Your task to perform on an android device: open app "NewsBreak: Local News & Alerts" (install if not already installed) Image 0: 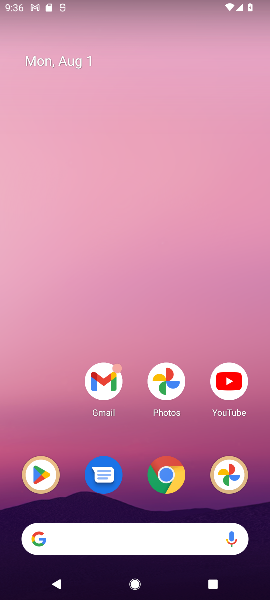
Step 0: click (42, 471)
Your task to perform on an android device: open app "NewsBreak: Local News & Alerts" (install if not already installed) Image 1: 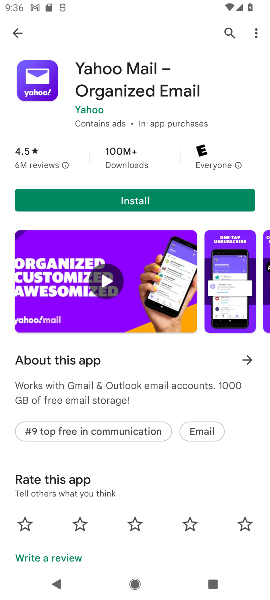
Step 1: click (16, 37)
Your task to perform on an android device: open app "NewsBreak: Local News & Alerts" (install if not already installed) Image 2: 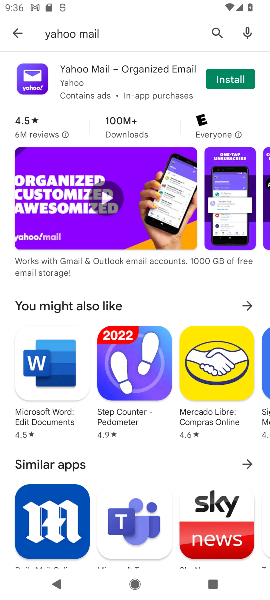
Step 2: click (18, 36)
Your task to perform on an android device: open app "NewsBreak: Local News & Alerts" (install if not already installed) Image 3: 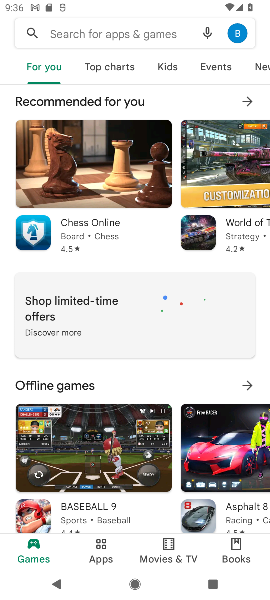
Step 3: click (148, 28)
Your task to perform on an android device: open app "NewsBreak: Local News & Alerts" (install if not already installed) Image 4: 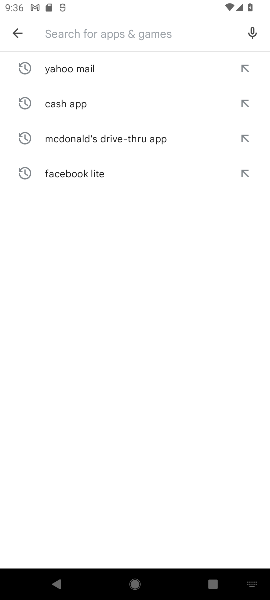
Step 4: type "NewsBreak: Local News & Alerts"
Your task to perform on an android device: open app "NewsBreak: Local News & Alerts" (install if not already installed) Image 5: 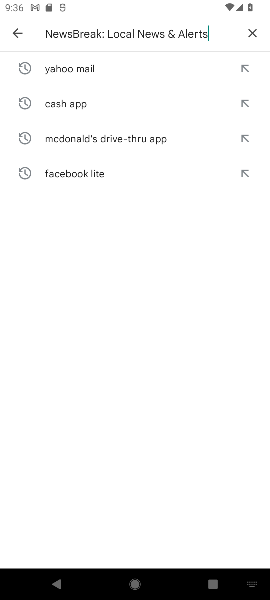
Step 5: type ""
Your task to perform on an android device: open app "NewsBreak: Local News & Alerts" (install if not already installed) Image 6: 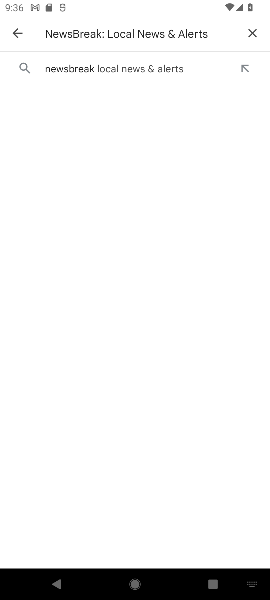
Step 6: click (58, 71)
Your task to perform on an android device: open app "NewsBreak: Local News & Alerts" (install if not already installed) Image 7: 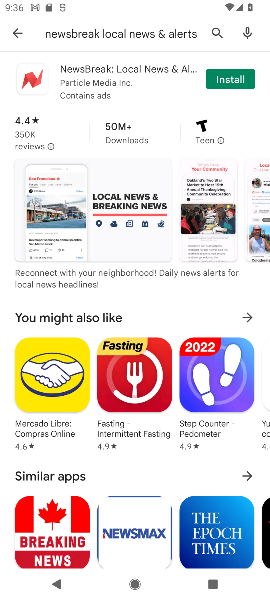
Step 7: click (217, 81)
Your task to perform on an android device: open app "NewsBreak: Local News & Alerts" (install if not already installed) Image 8: 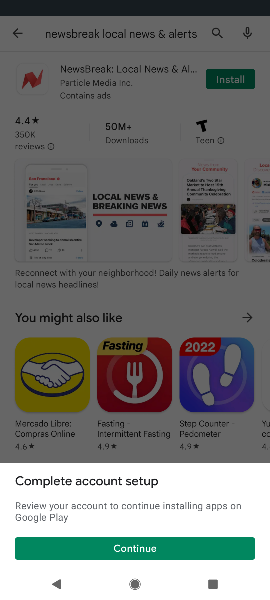
Step 8: click (146, 555)
Your task to perform on an android device: open app "NewsBreak: Local News & Alerts" (install if not already installed) Image 9: 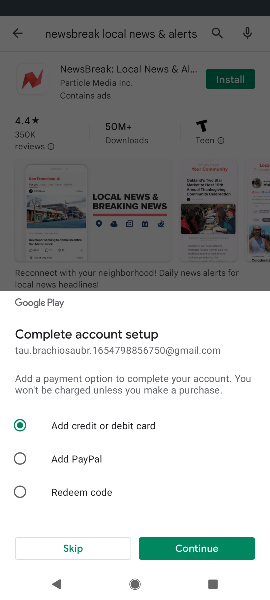
Step 9: click (116, 541)
Your task to perform on an android device: open app "NewsBreak: Local News & Alerts" (install if not already installed) Image 10: 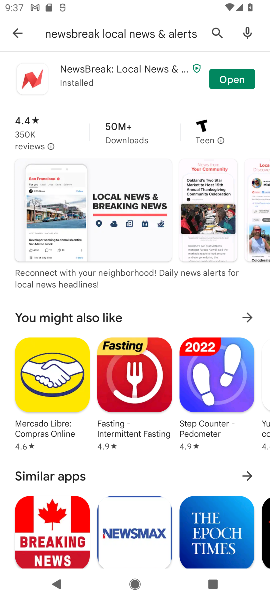
Step 10: click (237, 78)
Your task to perform on an android device: open app "NewsBreak: Local News & Alerts" (install if not already installed) Image 11: 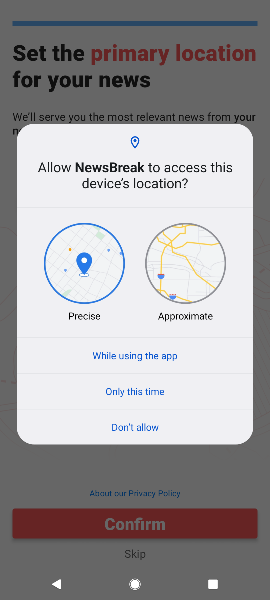
Step 11: task complete